Your task to perform on an android device: Open calendar and show me the fourth week of next month Image 0: 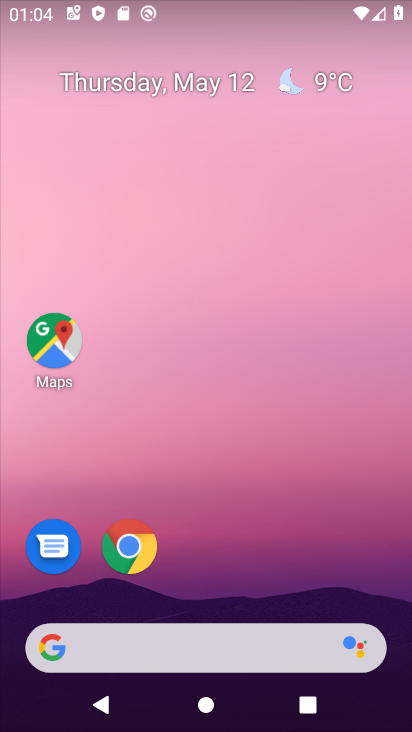
Step 0: drag from (207, 577) to (213, 247)
Your task to perform on an android device: Open calendar and show me the fourth week of next month Image 1: 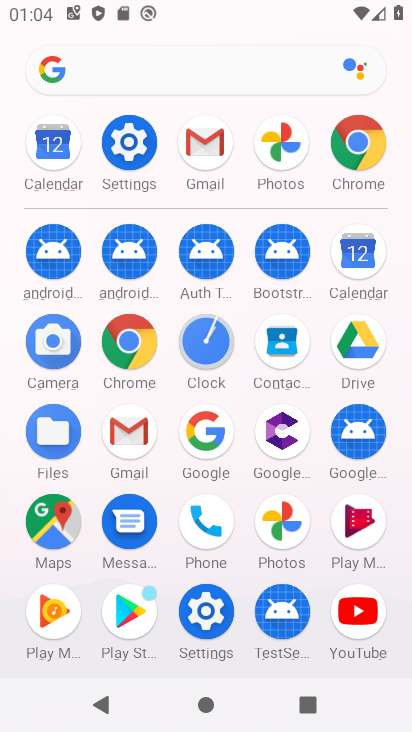
Step 1: click (374, 262)
Your task to perform on an android device: Open calendar and show me the fourth week of next month Image 2: 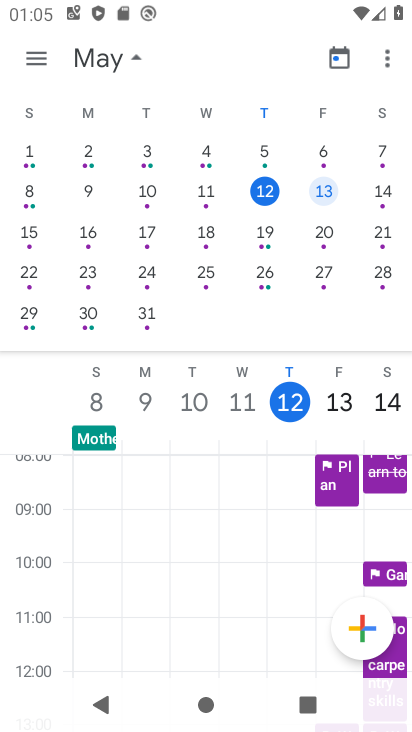
Step 2: drag from (399, 294) to (70, 249)
Your task to perform on an android device: Open calendar and show me the fourth week of next month Image 3: 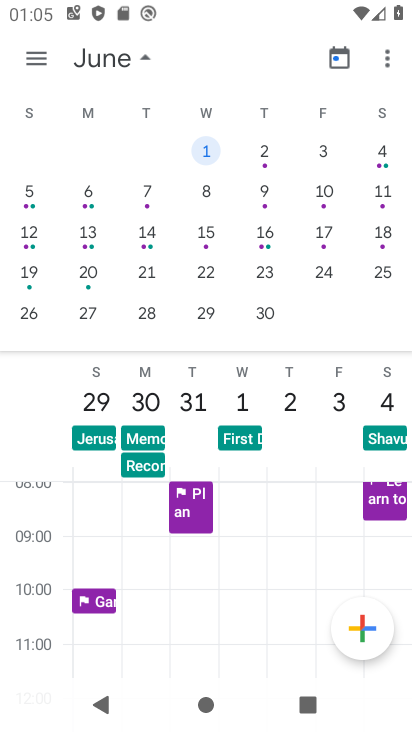
Step 3: click (216, 271)
Your task to perform on an android device: Open calendar and show me the fourth week of next month Image 4: 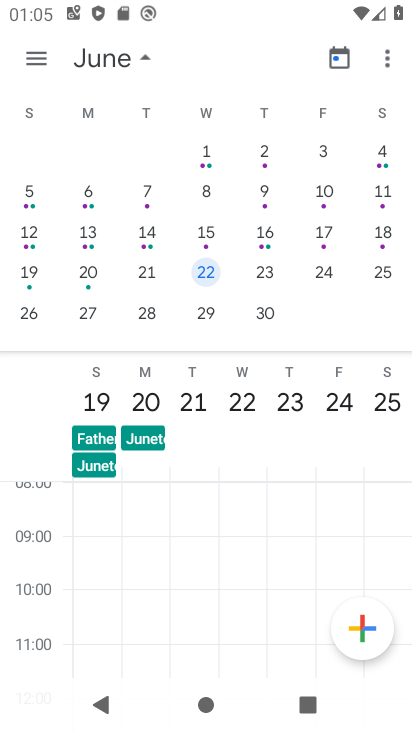
Step 4: click (35, 55)
Your task to perform on an android device: Open calendar and show me the fourth week of next month Image 5: 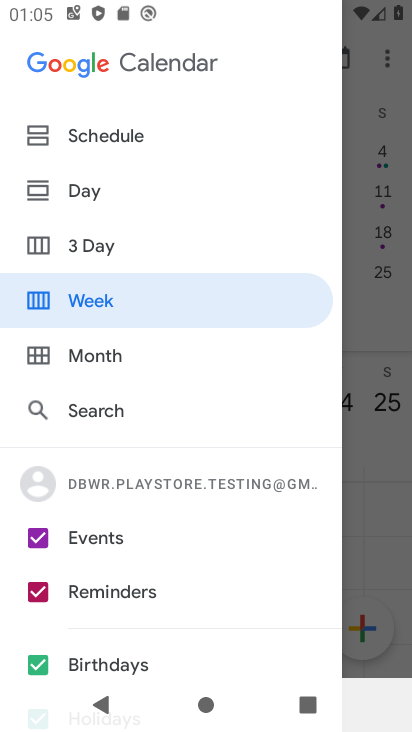
Step 5: click (173, 305)
Your task to perform on an android device: Open calendar and show me the fourth week of next month Image 6: 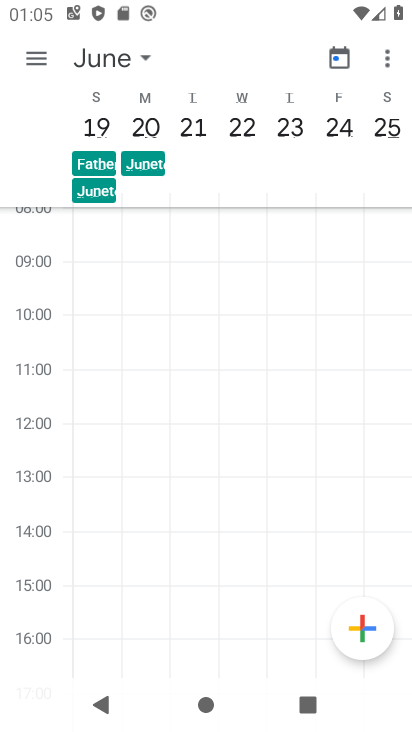
Step 6: task complete